Your task to perform on an android device: Set the phone to "Do not disturb". Image 0: 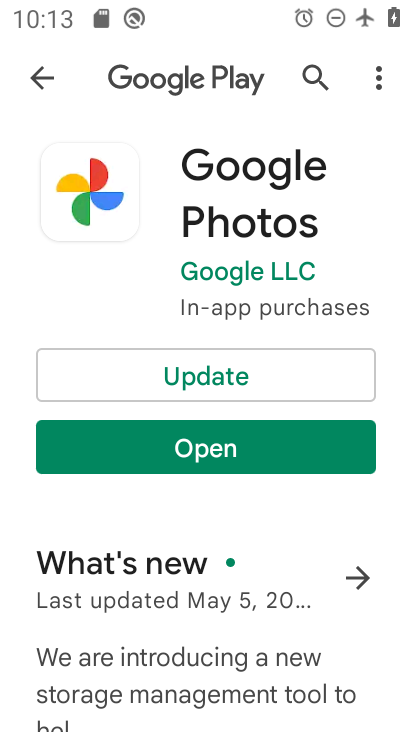
Step 0: press home button
Your task to perform on an android device: Set the phone to "Do not disturb". Image 1: 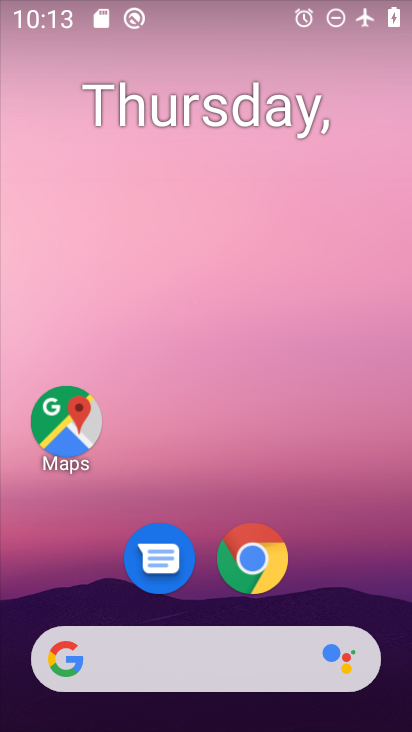
Step 1: drag from (384, 609) to (352, 103)
Your task to perform on an android device: Set the phone to "Do not disturb". Image 2: 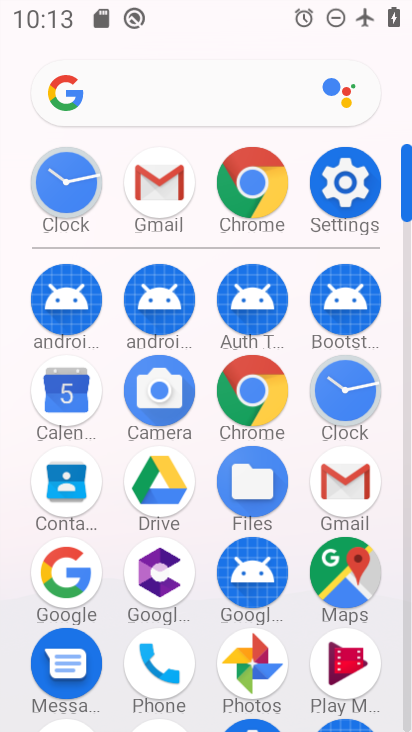
Step 2: click (343, 184)
Your task to perform on an android device: Set the phone to "Do not disturb". Image 3: 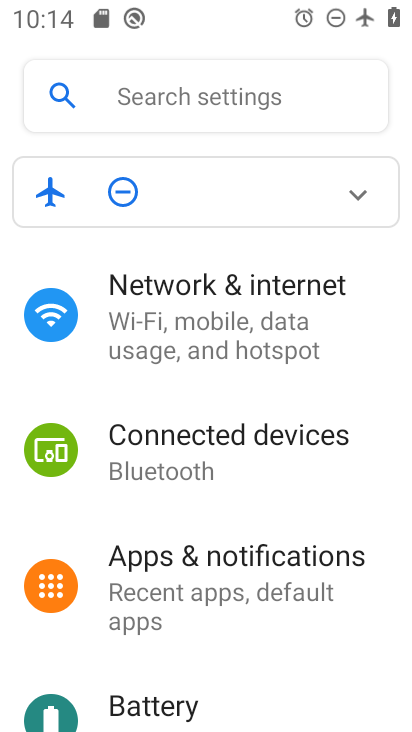
Step 3: drag from (235, 543) to (273, 36)
Your task to perform on an android device: Set the phone to "Do not disturb". Image 4: 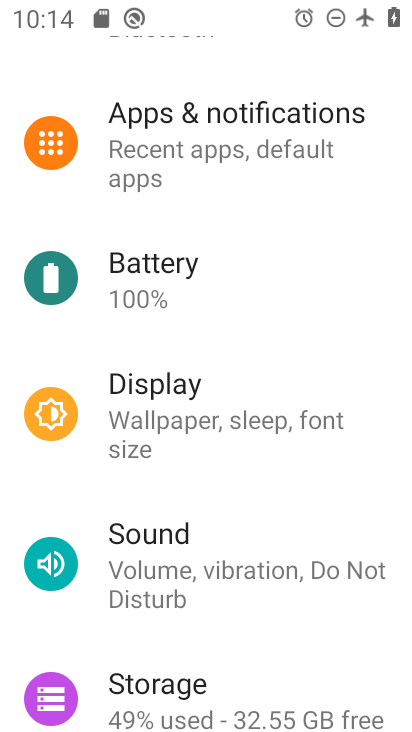
Step 4: click (167, 564)
Your task to perform on an android device: Set the phone to "Do not disturb". Image 5: 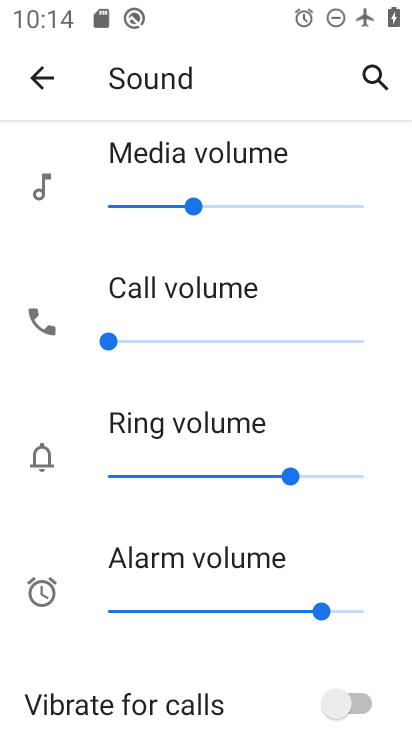
Step 5: drag from (233, 705) to (266, 101)
Your task to perform on an android device: Set the phone to "Do not disturb". Image 6: 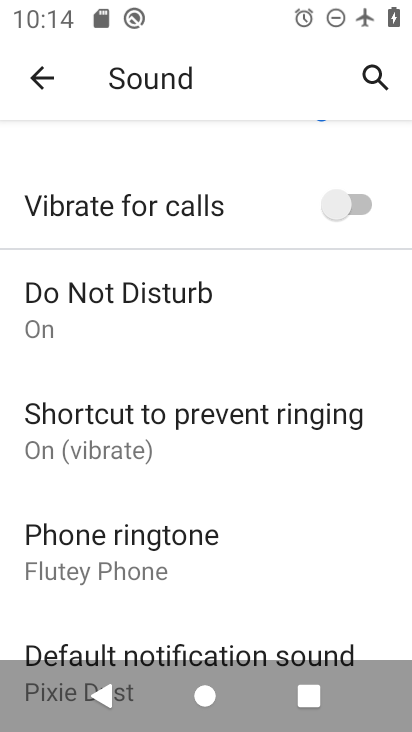
Step 6: click (103, 285)
Your task to perform on an android device: Set the phone to "Do not disturb". Image 7: 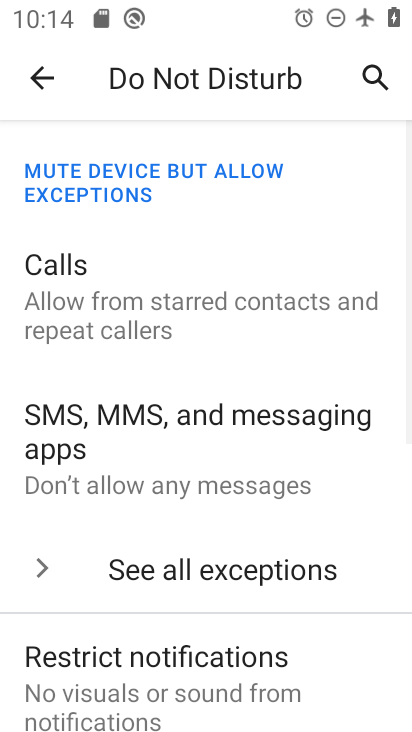
Step 7: task complete